Your task to perform on an android device: Search for sushi restaurants on Maps Image 0: 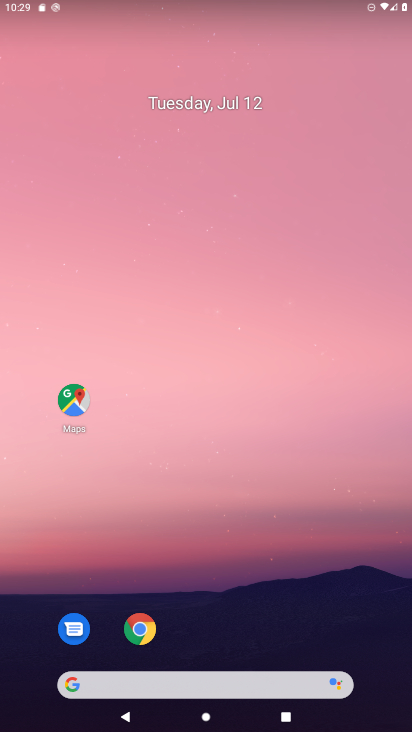
Step 0: drag from (291, 621) to (330, 34)
Your task to perform on an android device: Search for sushi restaurants on Maps Image 1: 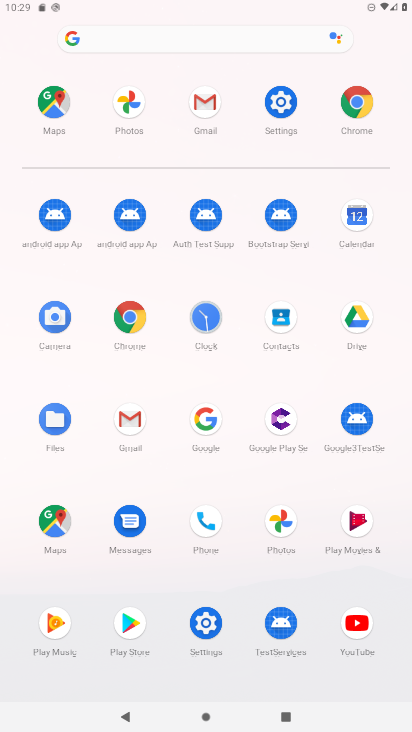
Step 1: click (44, 522)
Your task to perform on an android device: Search for sushi restaurants on Maps Image 2: 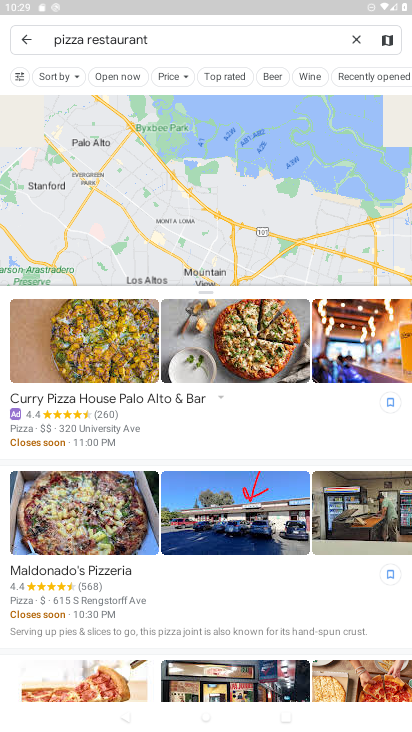
Step 2: press back button
Your task to perform on an android device: Search for sushi restaurants on Maps Image 3: 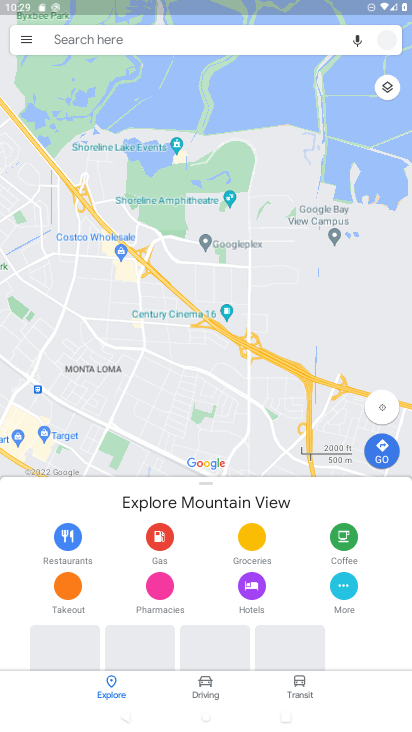
Step 3: click (155, 49)
Your task to perform on an android device: Search for sushi restaurants on Maps Image 4: 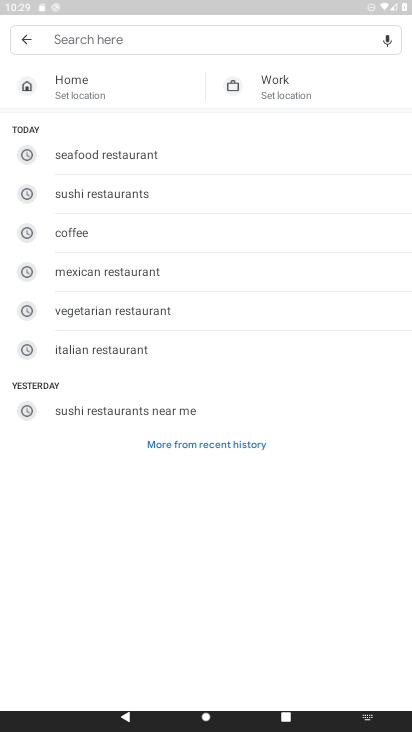
Step 4: click (106, 34)
Your task to perform on an android device: Search for sushi restaurants on Maps Image 5: 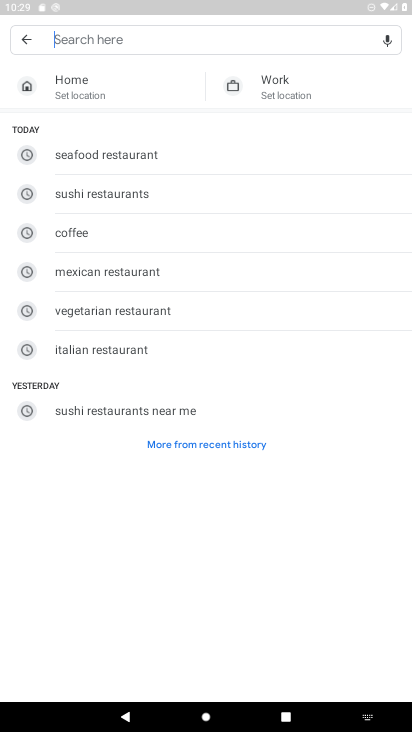
Step 5: click (117, 408)
Your task to perform on an android device: Search for sushi restaurants on Maps Image 6: 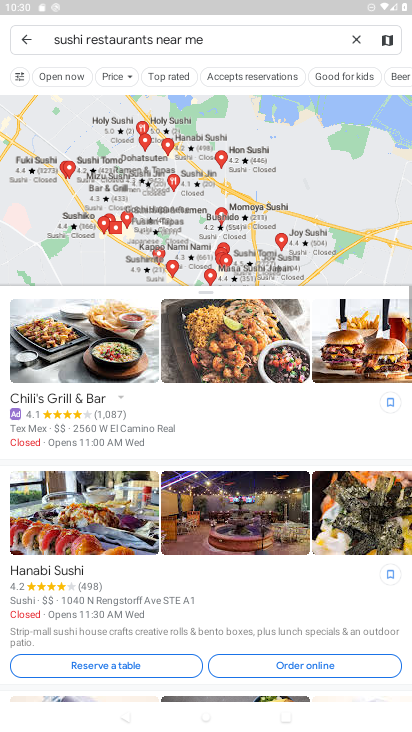
Step 6: task complete